Your task to perform on an android device: Go to wifi settings Image 0: 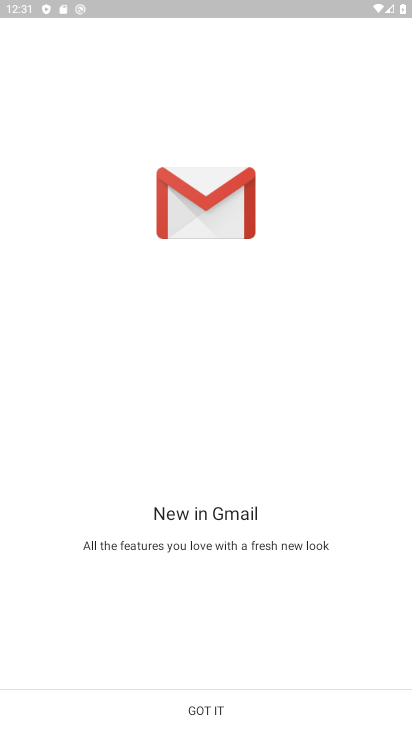
Step 0: press home button
Your task to perform on an android device: Go to wifi settings Image 1: 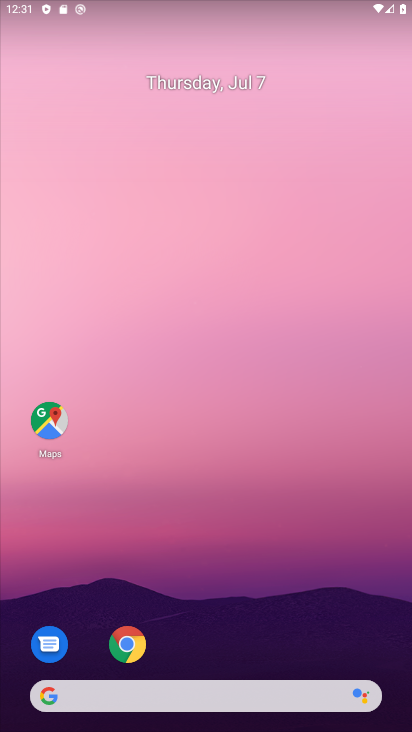
Step 1: drag from (1, 697) to (28, 489)
Your task to perform on an android device: Go to wifi settings Image 2: 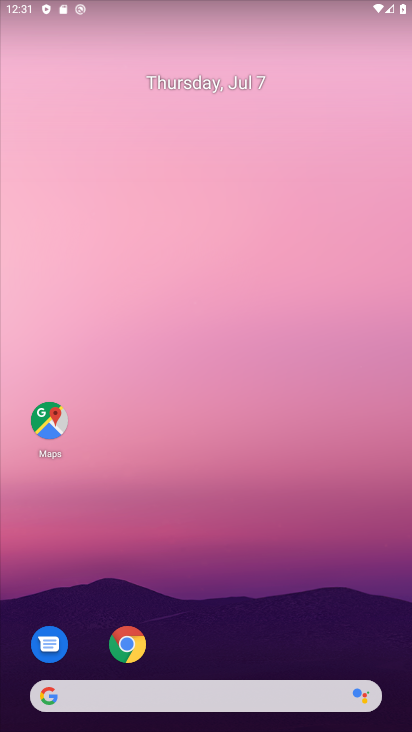
Step 2: drag from (212, 190) to (291, 35)
Your task to perform on an android device: Go to wifi settings Image 3: 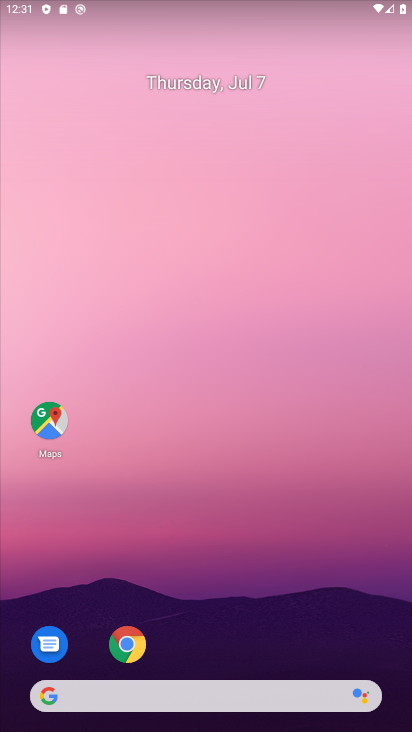
Step 3: drag from (30, 661) to (194, 206)
Your task to perform on an android device: Go to wifi settings Image 4: 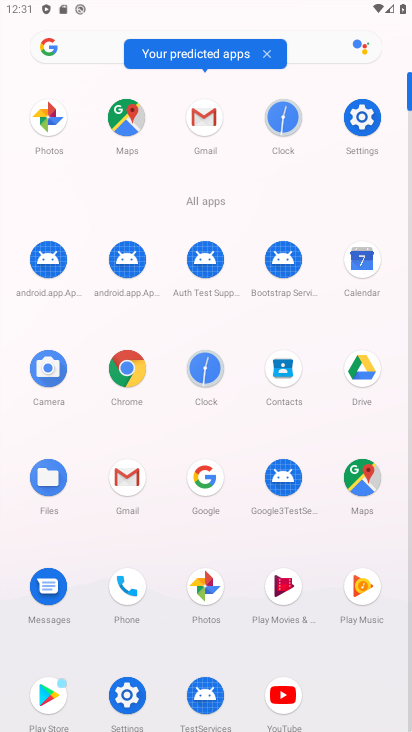
Step 4: click (125, 697)
Your task to perform on an android device: Go to wifi settings Image 5: 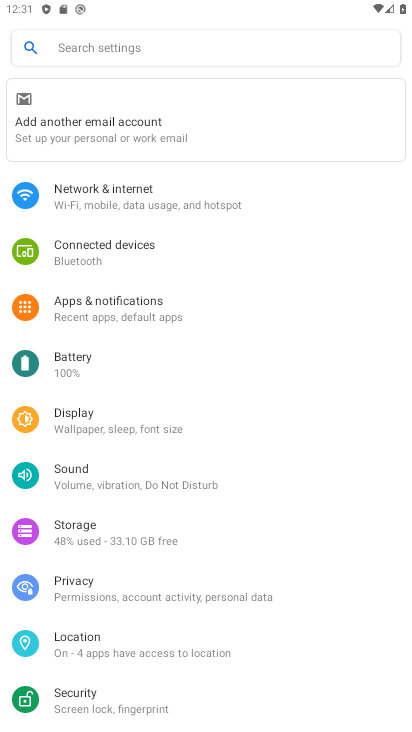
Step 5: click (144, 201)
Your task to perform on an android device: Go to wifi settings Image 6: 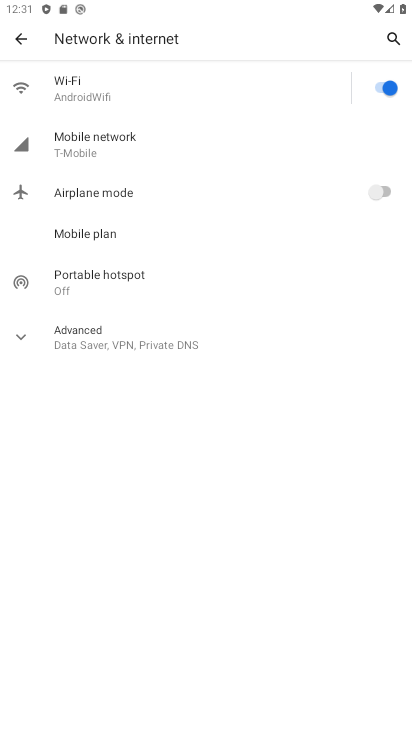
Step 6: click (122, 100)
Your task to perform on an android device: Go to wifi settings Image 7: 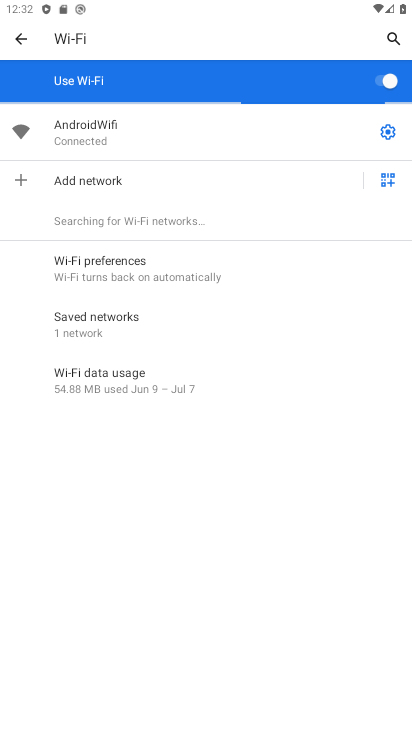
Step 7: task complete